Your task to perform on an android device: Open Youtube and go to the subscriptions tab Image 0: 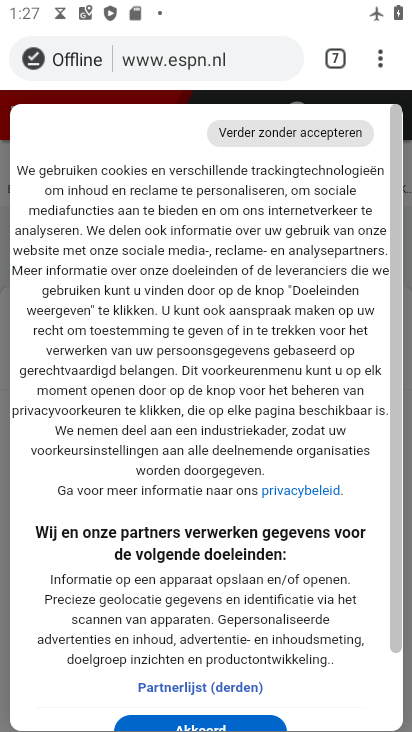
Step 0: press home button
Your task to perform on an android device: Open Youtube and go to the subscriptions tab Image 1: 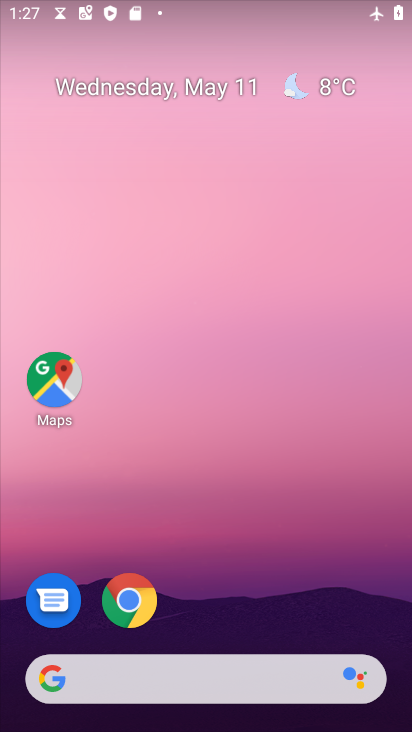
Step 1: drag from (241, 581) to (170, 98)
Your task to perform on an android device: Open Youtube and go to the subscriptions tab Image 2: 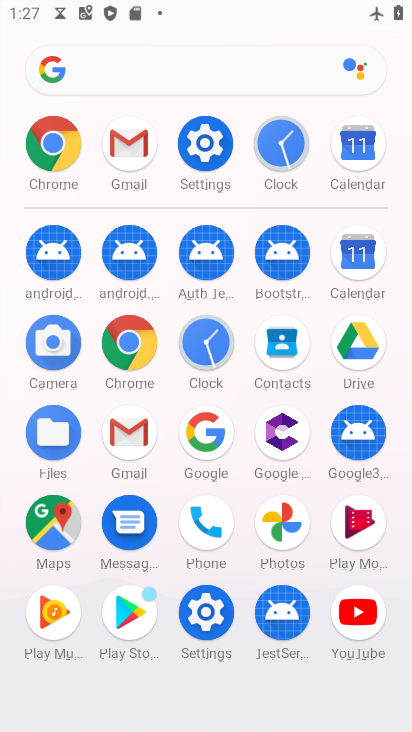
Step 2: click (347, 599)
Your task to perform on an android device: Open Youtube and go to the subscriptions tab Image 3: 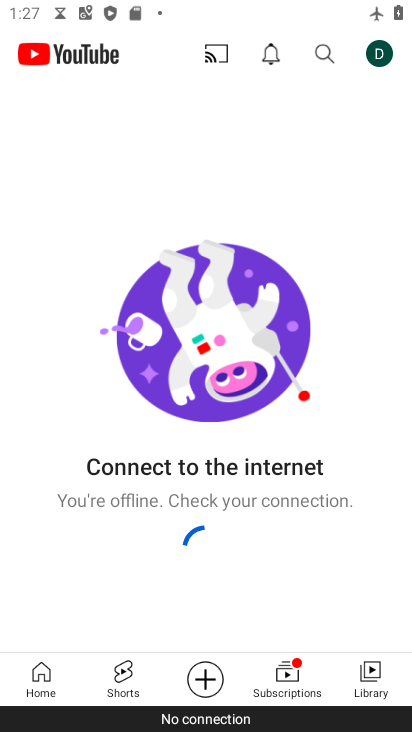
Step 3: click (295, 680)
Your task to perform on an android device: Open Youtube and go to the subscriptions tab Image 4: 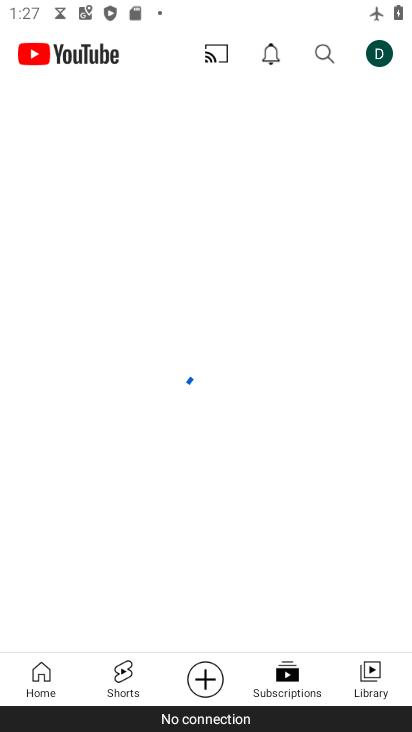
Step 4: task complete